Your task to perform on an android device: turn off wifi Image 0: 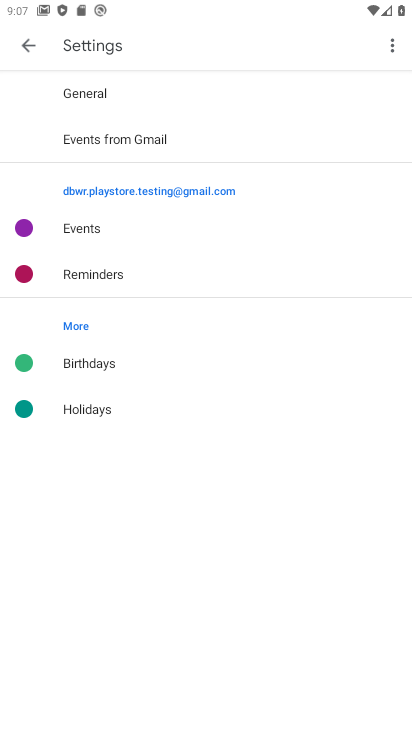
Step 0: press home button
Your task to perform on an android device: turn off wifi Image 1: 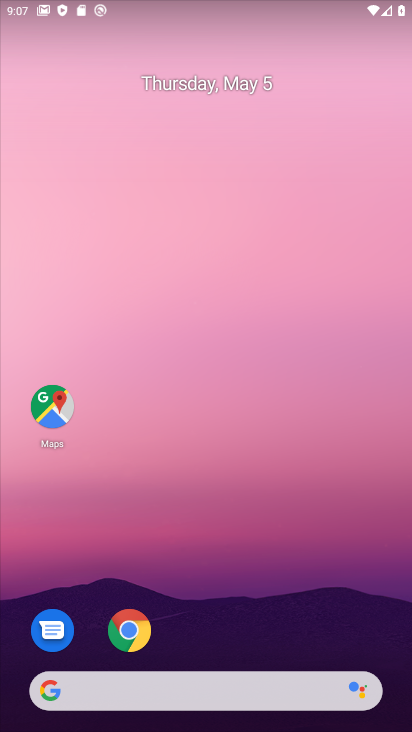
Step 1: drag from (213, 535) to (71, 136)
Your task to perform on an android device: turn off wifi Image 2: 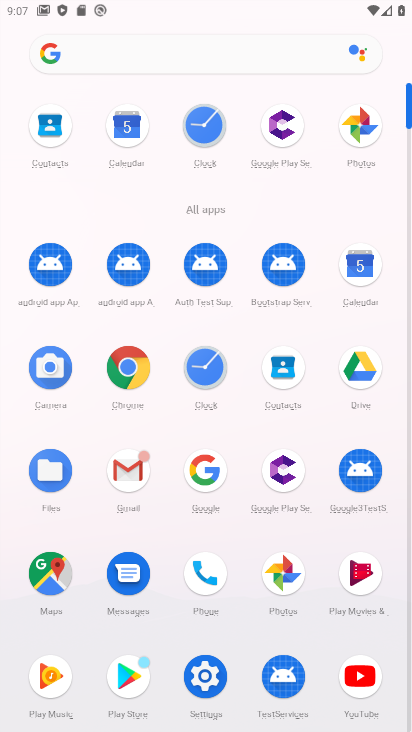
Step 2: click (212, 676)
Your task to perform on an android device: turn off wifi Image 3: 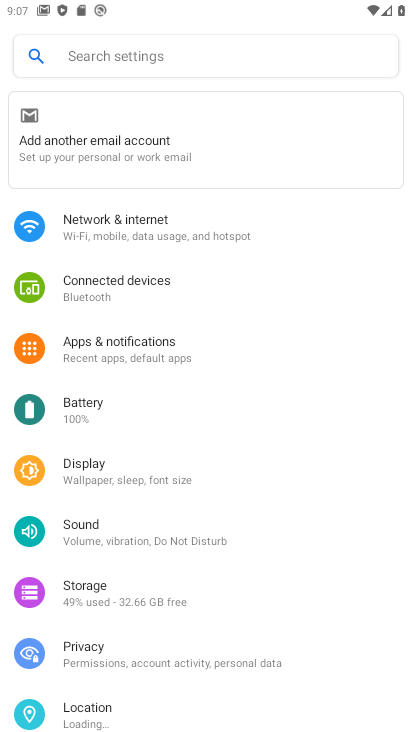
Step 3: click (132, 230)
Your task to perform on an android device: turn off wifi Image 4: 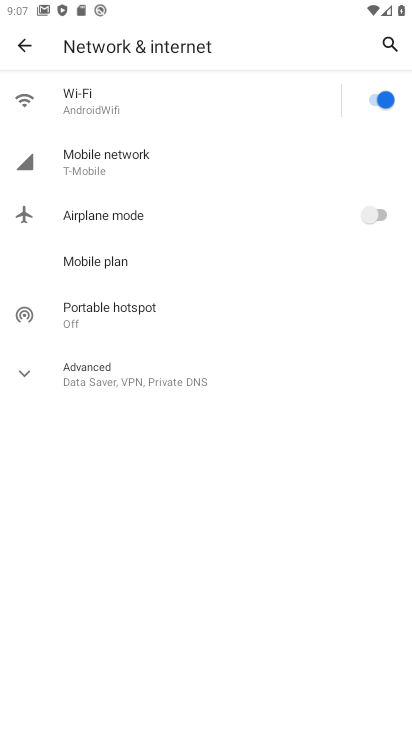
Step 4: click (388, 94)
Your task to perform on an android device: turn off wifi Image 5: 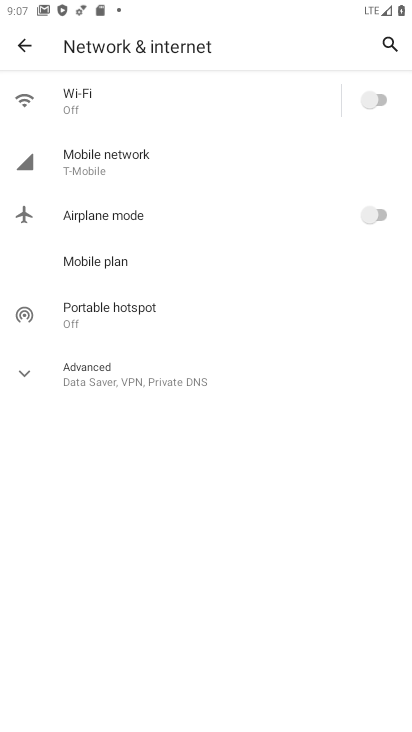
Step 5: task complete